Your task to perform on an android device: Open Reddit.com Image 0: 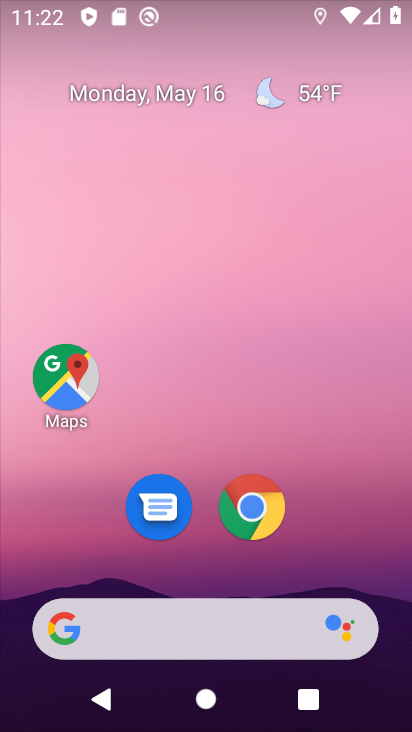
Step 0: drag from (395, 591) to (341, 179)
Your task to perform on an android device: Open Reddit.com Image 1: 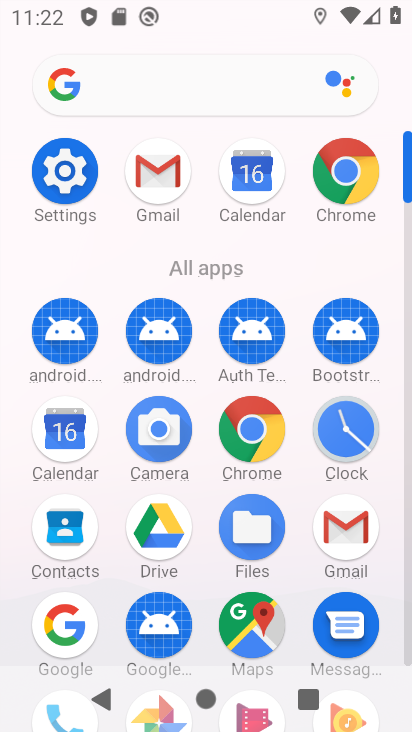
Step 1: click (358, 166)
Your task to perform on an android device: Open Reddit.com Image 2: 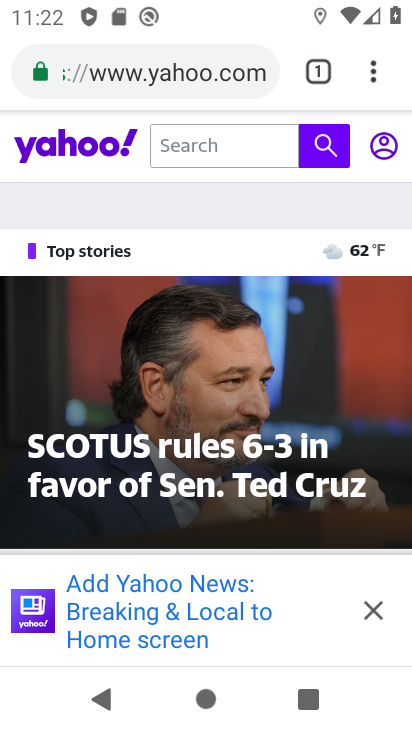
Step 2: click (210, 75)
Your task to perform on an android device: Open Reddit.com Image 3: 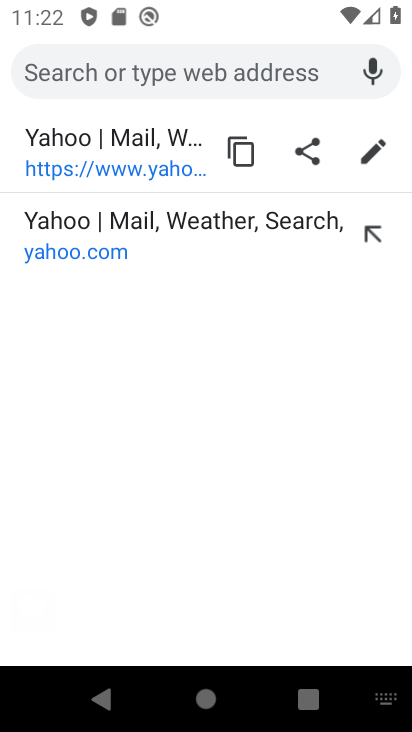
Step 3: type "Reddit.com"
Your task to perform on an android device: Open Reddit.com Image 4: 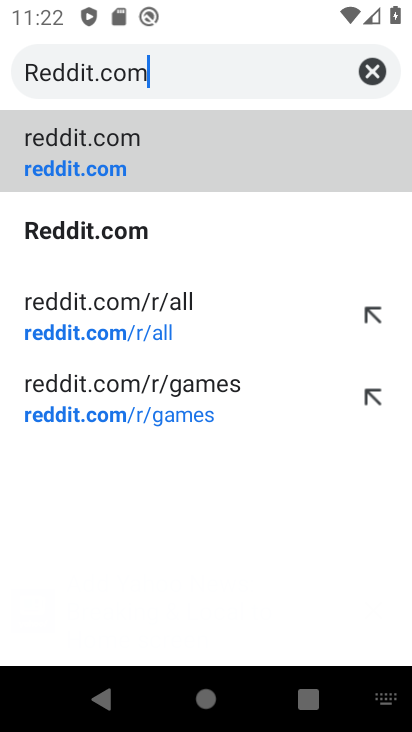
Step 4: click (113, 168)
Your task to perform on an android device: Open Reddit.com Image 5: 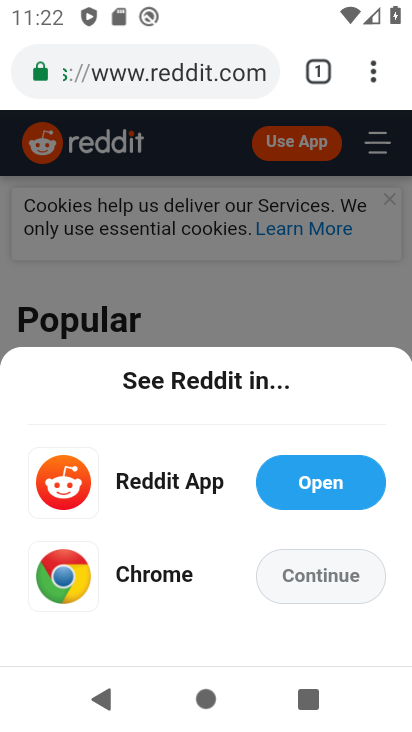
Step 5: click (340, 573)
Your task to perform on an android device: Open Reddit.com Image 6: 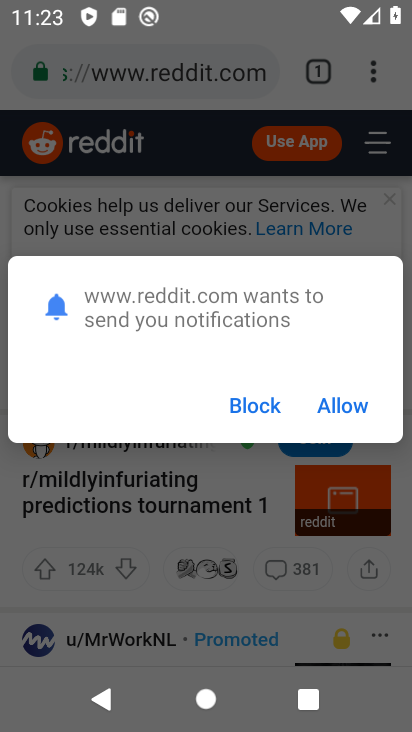
Step 6: click (264, 403)
Your task to perform on an android device: Open Reddit.com Image 7: 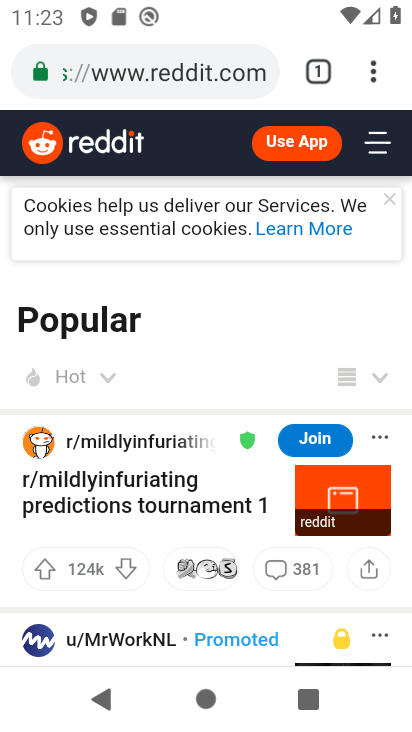
Step 7: task complete